Your task to perform on an android device: change the clock display to analog Image 0: 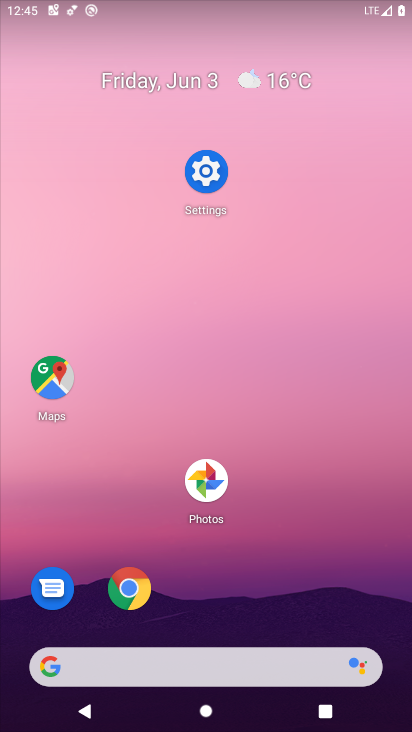
Step 0: click (316, 342)
Your task to perform on an android device: change the clock display to analog Image 1: 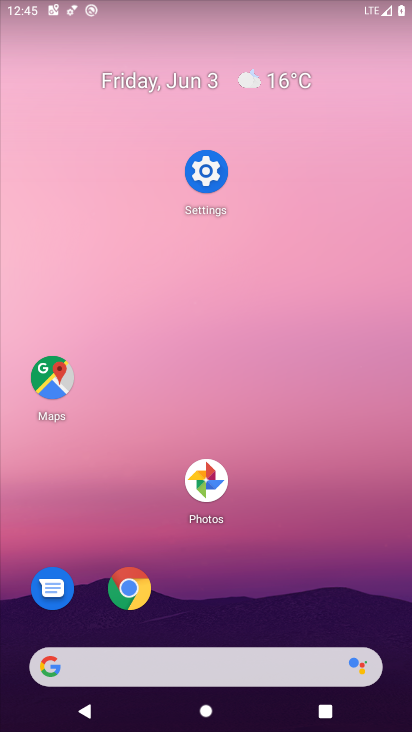
Step 1: drag from (159, 596) to (163, 79)
Your task to perform on an android device: change the clock display to analog Image 2: 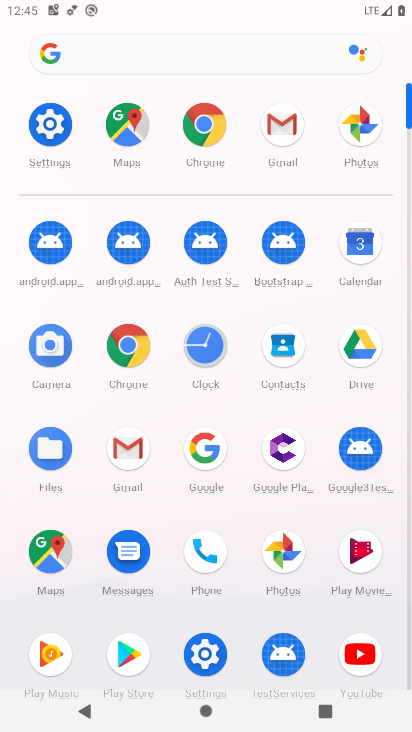
Step 2: click (203, 341)
Your task to perform on an android device: change the clock display to analog Image 3: 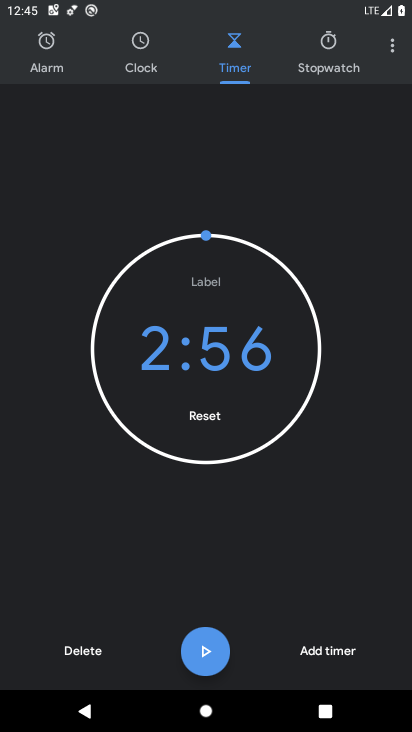
Step 3: click (398, 45)
Your task to perform on an android device: change the clock display to analog Image 4: 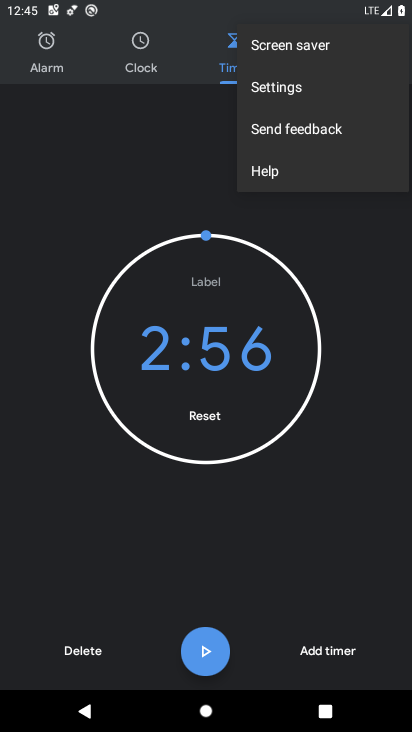
Step 4: click (281, 84)
Your task to perform on an android device: change the clock display to analog Image 5: 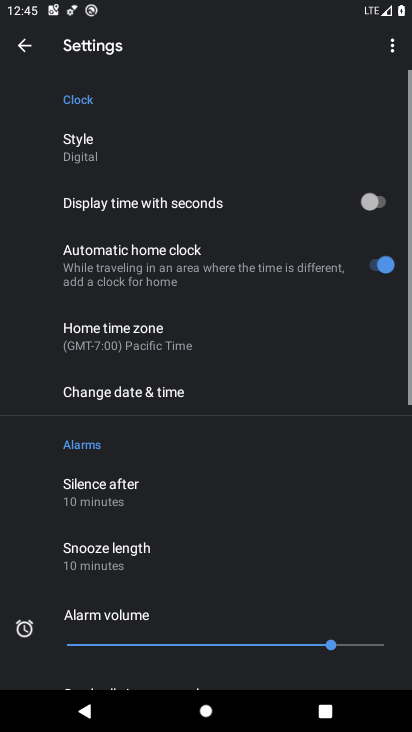
Step 5: click (94, 163)
Your task to perform on an android device: change the clock display to analog Image 6: 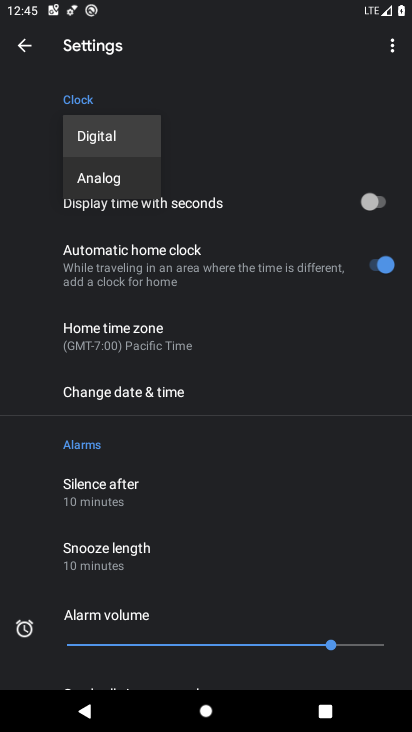
Step 6: click (114, 178)
Your task to perform on an android device: change the clock display to analog Image 7: 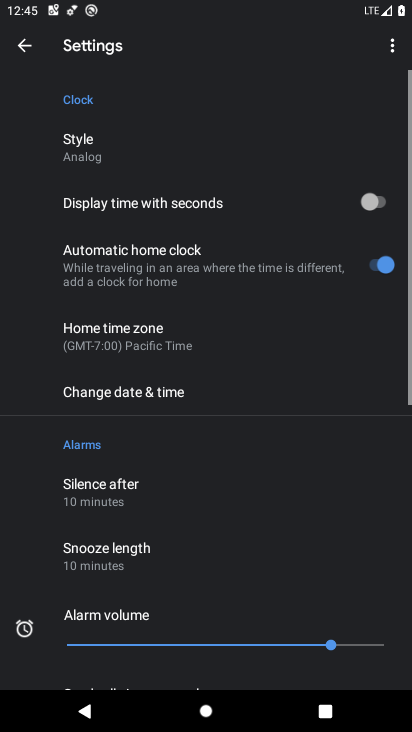
Step 7: task complete